Your task to perform on an android device: manage bookmarks in the chrome app Image 0: 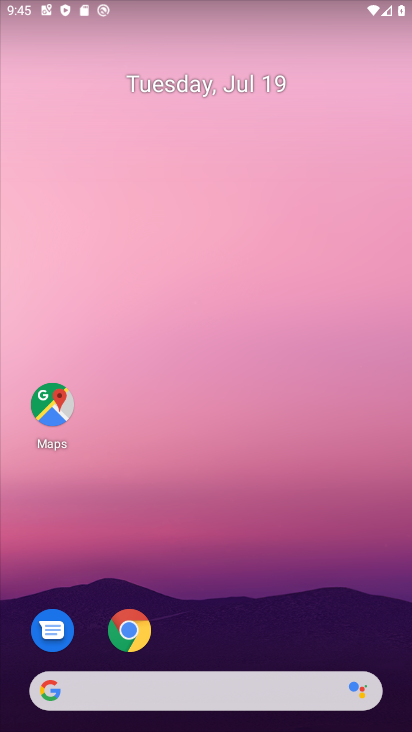
Step 0: click (131, 631)
Your task to perform on an android device: manage bookmarks in the chrome app Image 1: 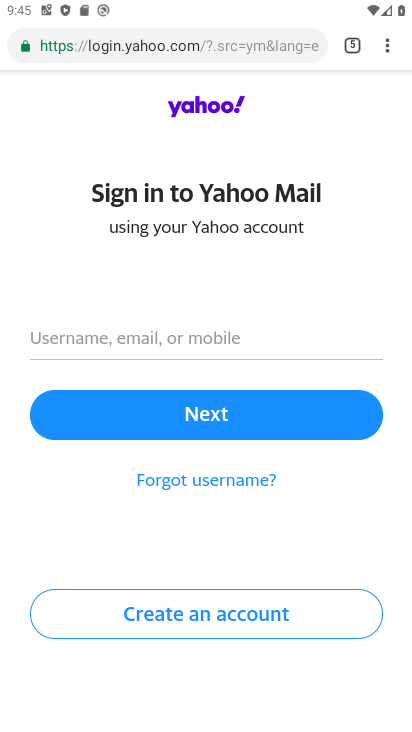
Step 1: click (385, 40)
Your task to perform on an android device: manage bookmarks in the chrome app Image 2: 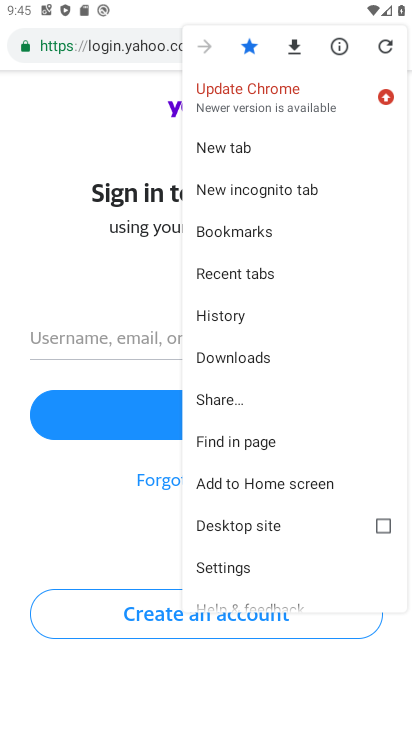
Step 2: click (228, 234)
Your task to perform on an android device: manage bookmarks in the chrome app Image 3: 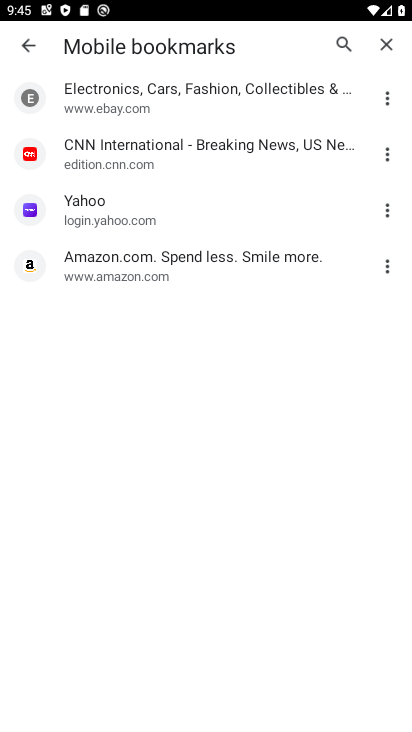
Step 3: click (381, 210)
Your task to perform on an android device: manage bookmarks in the chrome app Image 4: 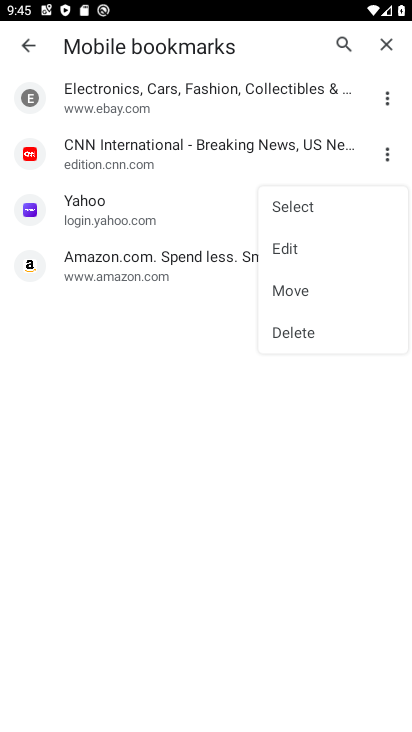
Step 4: click (298, 329)
Your task to perform on an android device: manage bookmarks in the chrome app Image 5: 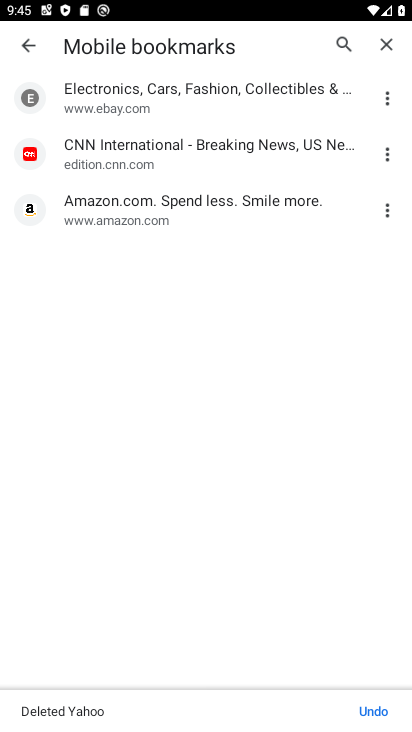
Step 5: task complete